Your task to perform on an android device: allow notifications from all sites in the chrome app Image 0: 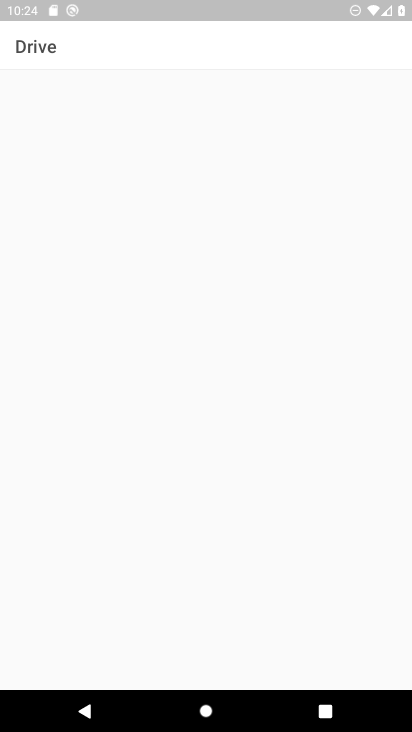
Step 0: press home button
Your task to perform on an android device: allow notifications from all sites in the chrome app Image 1: 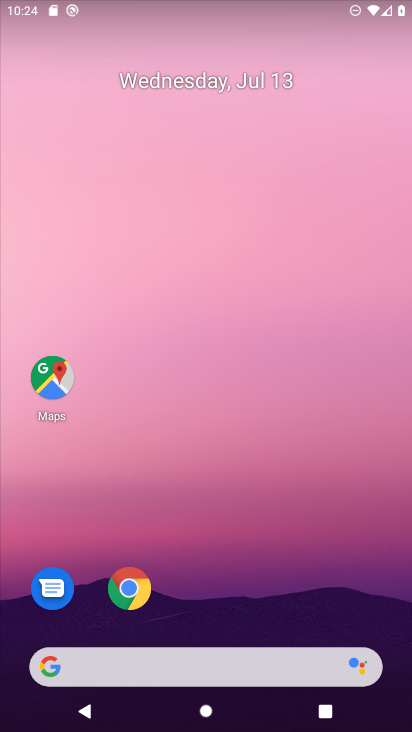
Step 1: click (142, 581)
Your task to perform on an android device: allow notifications from all sites in the chrome app Image 2: 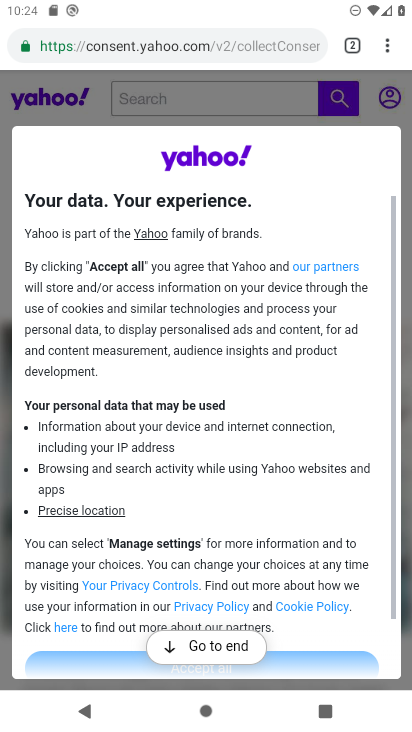
Step 2: drag from (392, 36) to (213, 537)
Your task to perform on an android device: allow notifications from all sites in the chrome app Image 3: 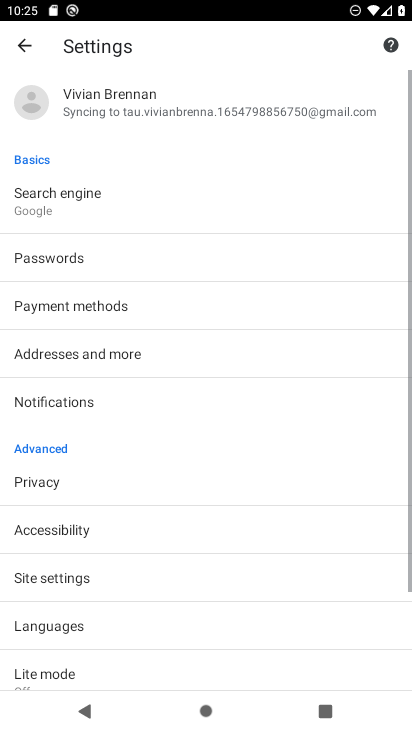
Step 3: drag from (215, 537) to (221, 201)
Your task to perform on an android device: allow notifications from all sites in the chrome app Image 4: 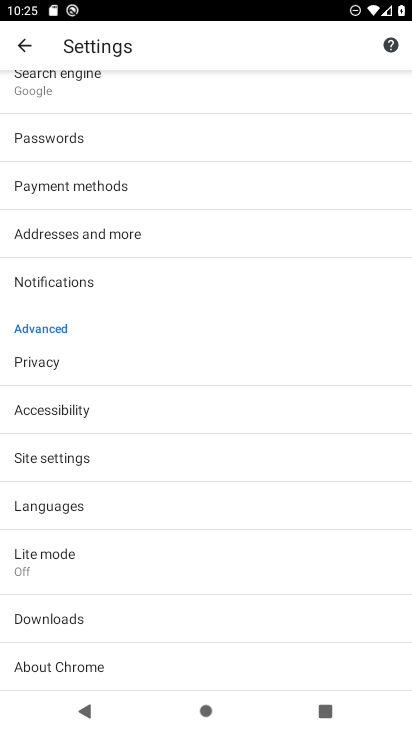
Step 4: click (65, 457)
Your task to perform on an android device: allow notifications from all sites in the chrome app Image 5: 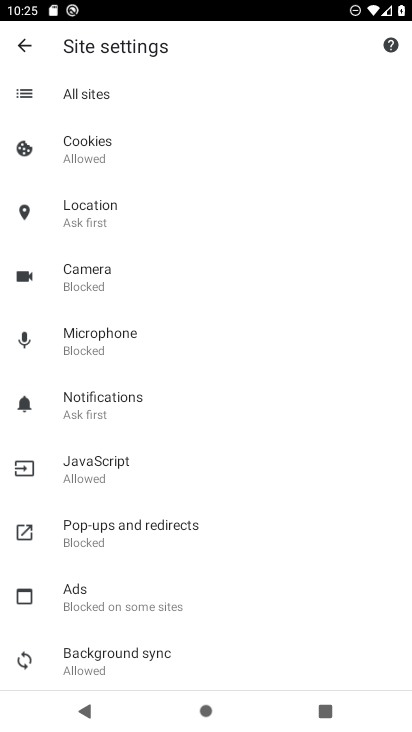
Step 5: click (128, 404)
Your task to perform on an android device: allow notifications from all sites in the chrome app Image 6: 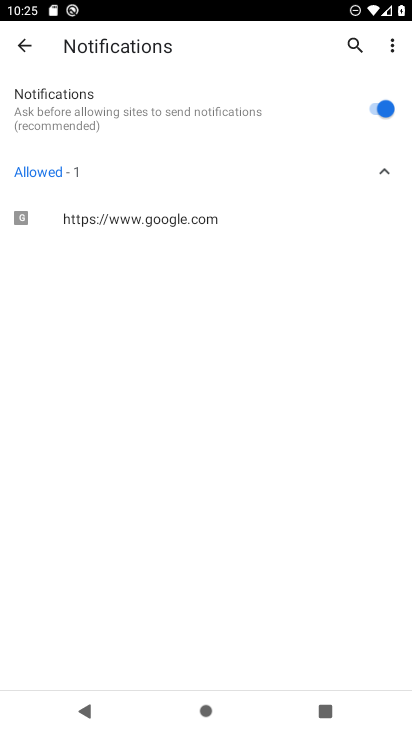
Step 6: task complete